Your task to perform on an android device: change the clock display to show seconds Image 0: 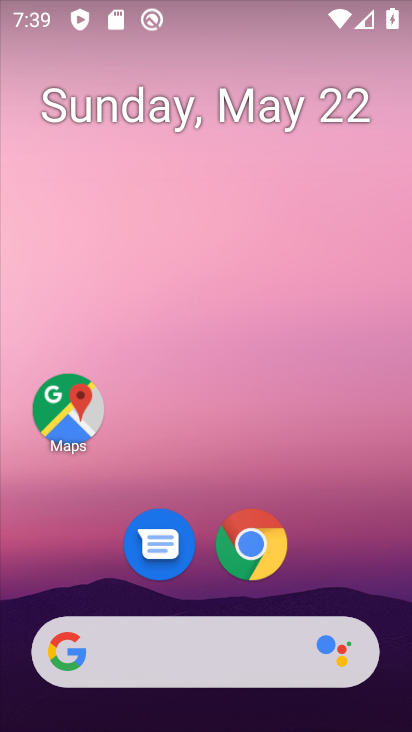
Step 0: drag from (409, 497) to (405, 336)
Your task to perform on an android device: change the clock display to show seconds Image 1: 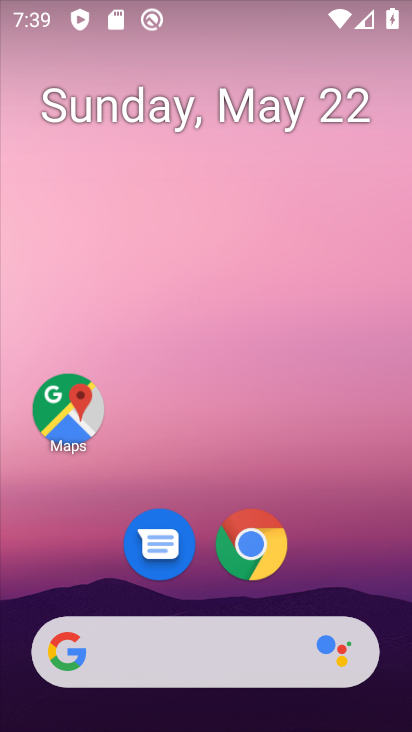
Step 1: drag from (394, 691) to (311, 170)
Your task to perform on an android device: change the clock display to show seconds Image 2: 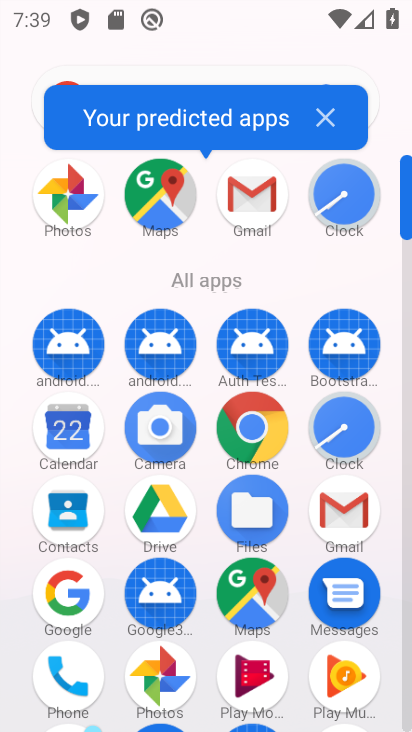
Step 2: click (336, 440)
Your task to perform on an android device: change the clock display to show seconds Image 3: 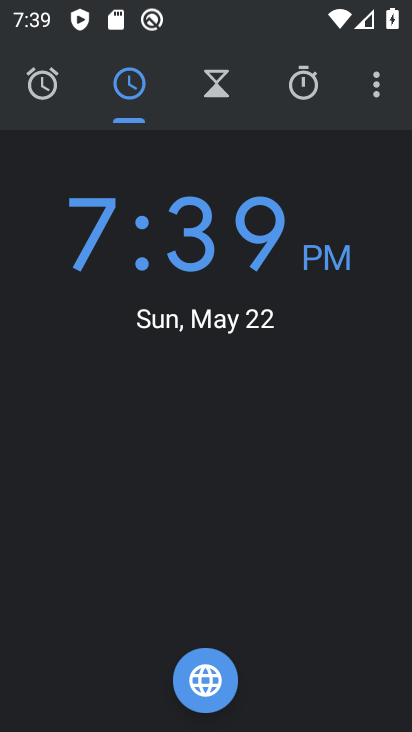
Step 3: click (373, 87)
Your task to perform on an android device: change the clock display to show seconds Image 4: 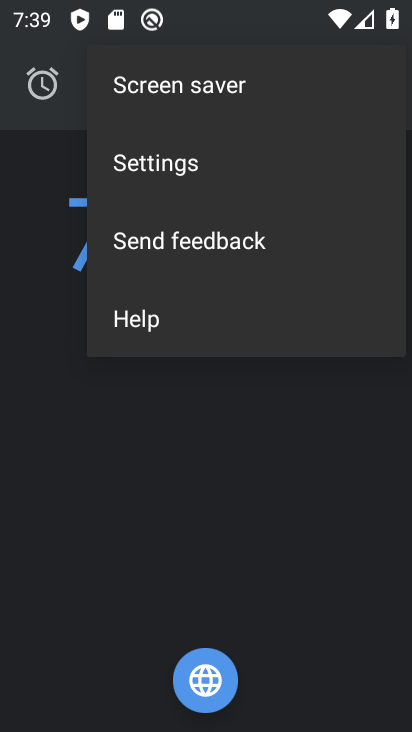
Step 4: click (156, 164)
Your task to perform on an android device: change the clock display to show seconds Image 5: 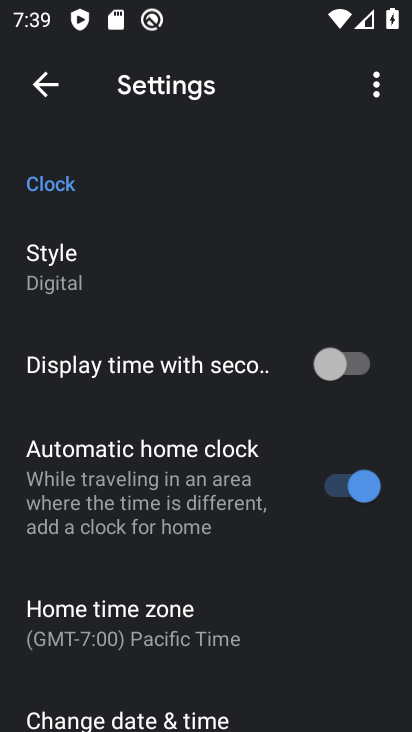
Step 5: click (354, 374)
Your task to perform on an android device: change the clock display to show seconds Image 6: 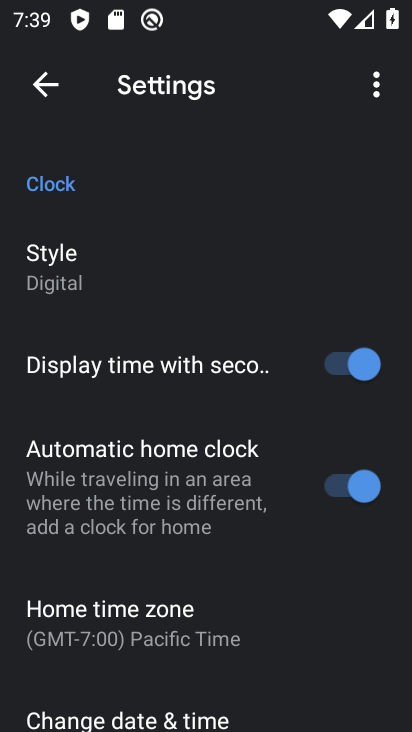
Step 6: task complete